Your task to perform on an android device: Go to display settings Image 0: 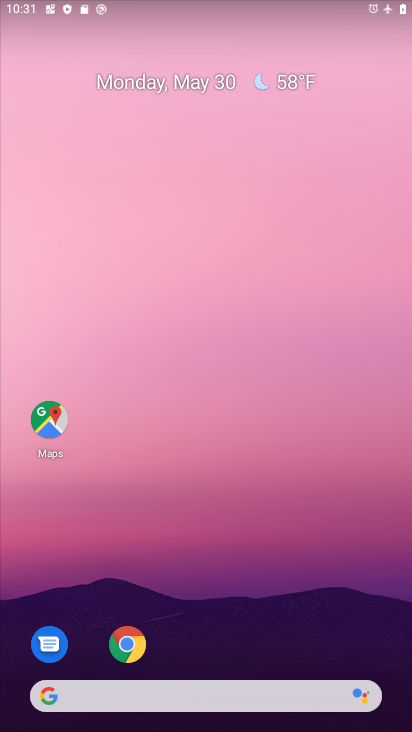
Step 0: drag from (368, 636) to (297, 222)
Your task to perform on an android device: Go to display settings Image 1: 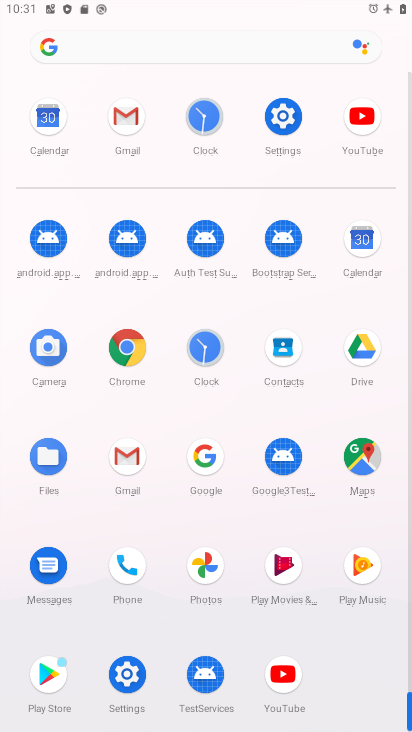
Step 1: click (126, 674)
Your task to perform on an android device: Go to display settings Image 2: 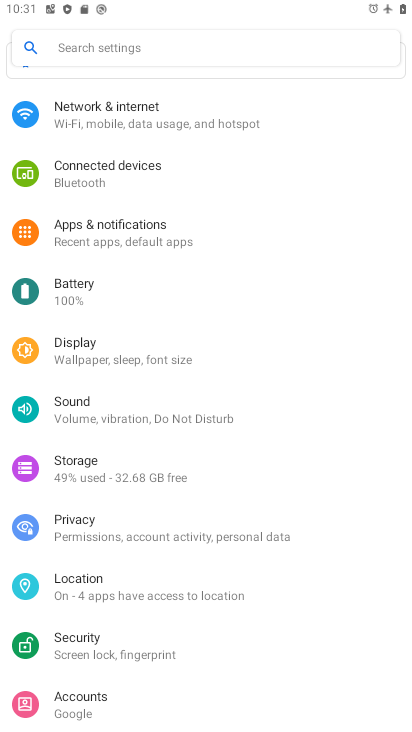
Step 2: click (93, 338)
Your task to perform on an android device: Go to display settings Image 3: 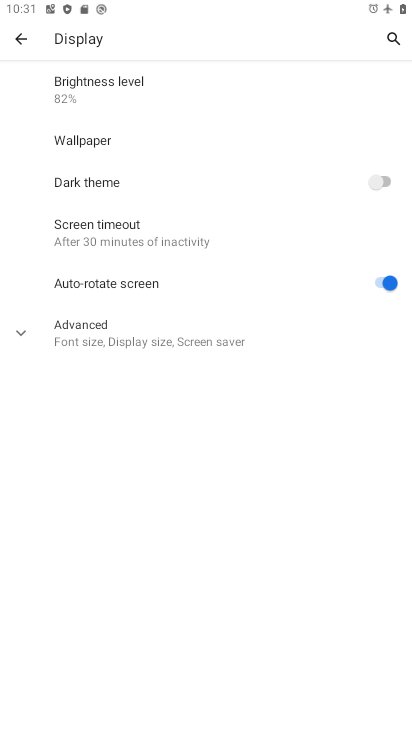
Step 3: click (35, 327)
Your task to perform on an android device: Go to display settings Image 4: 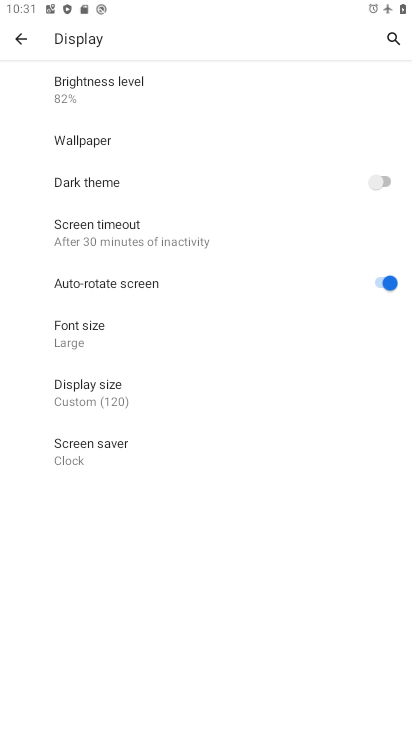
Step 4: task complete